Your task to perform on an android device: toggle improve location accuracy Image 0: 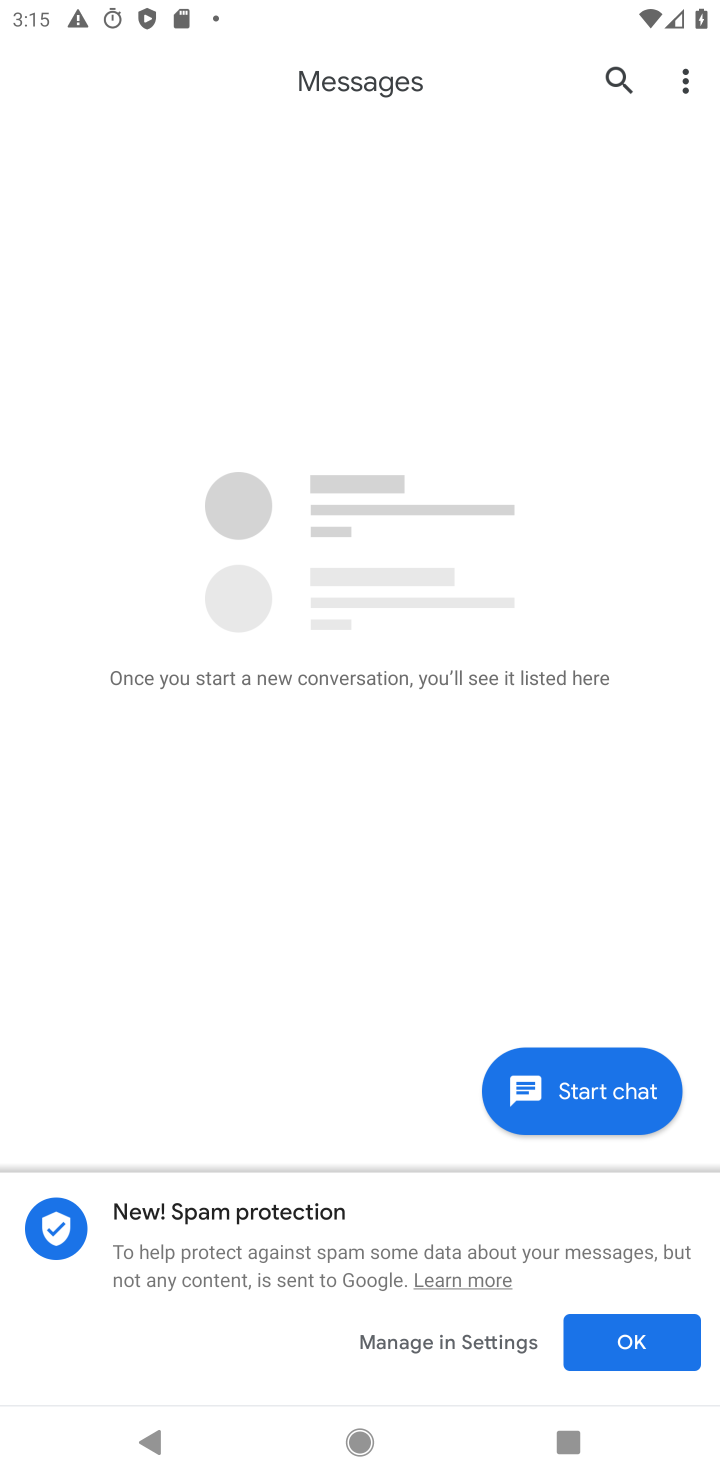
Step 0: press home button
Your task to perform on an android device: toggle improve location accuracy Image 1: 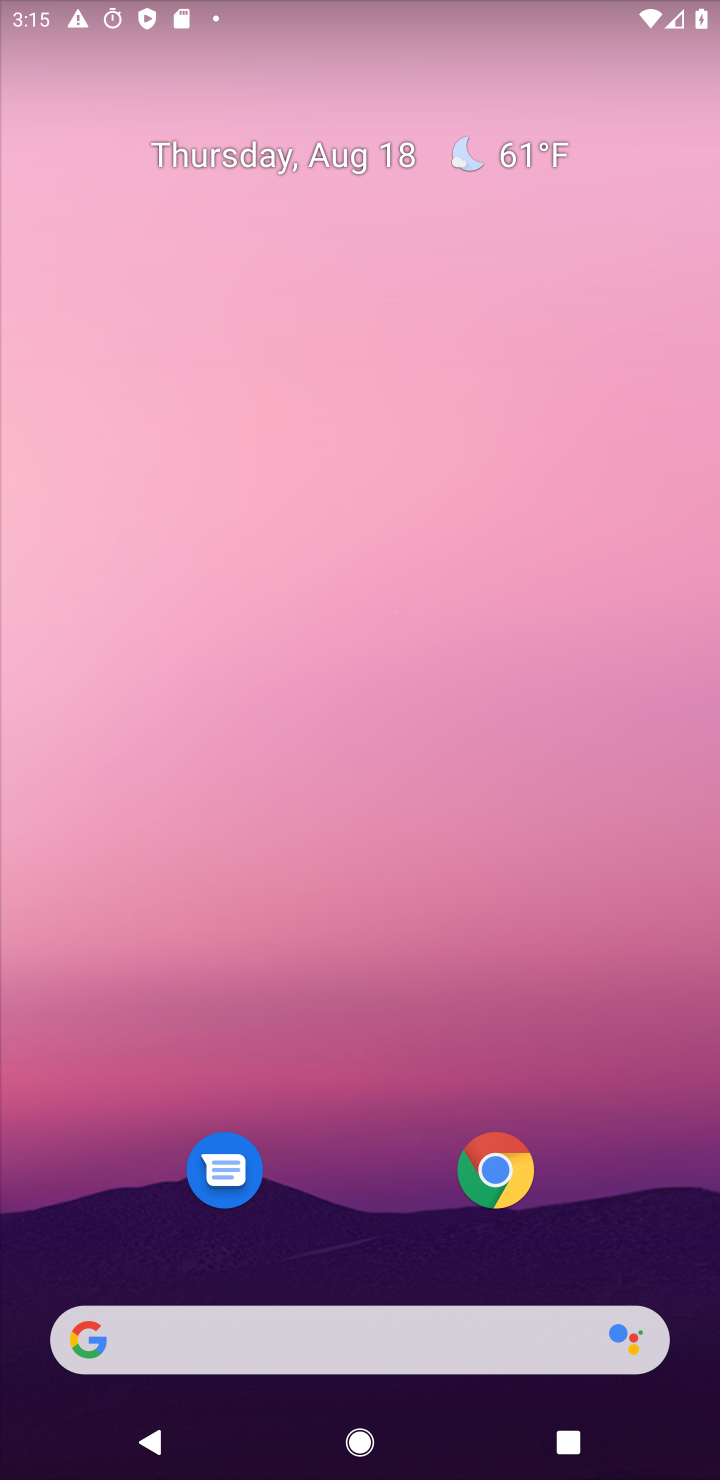
Step 1: drag from (75, 1379) to (515, 387)
Your task to perform on an android device: toggle improve location accuracy Image 2: 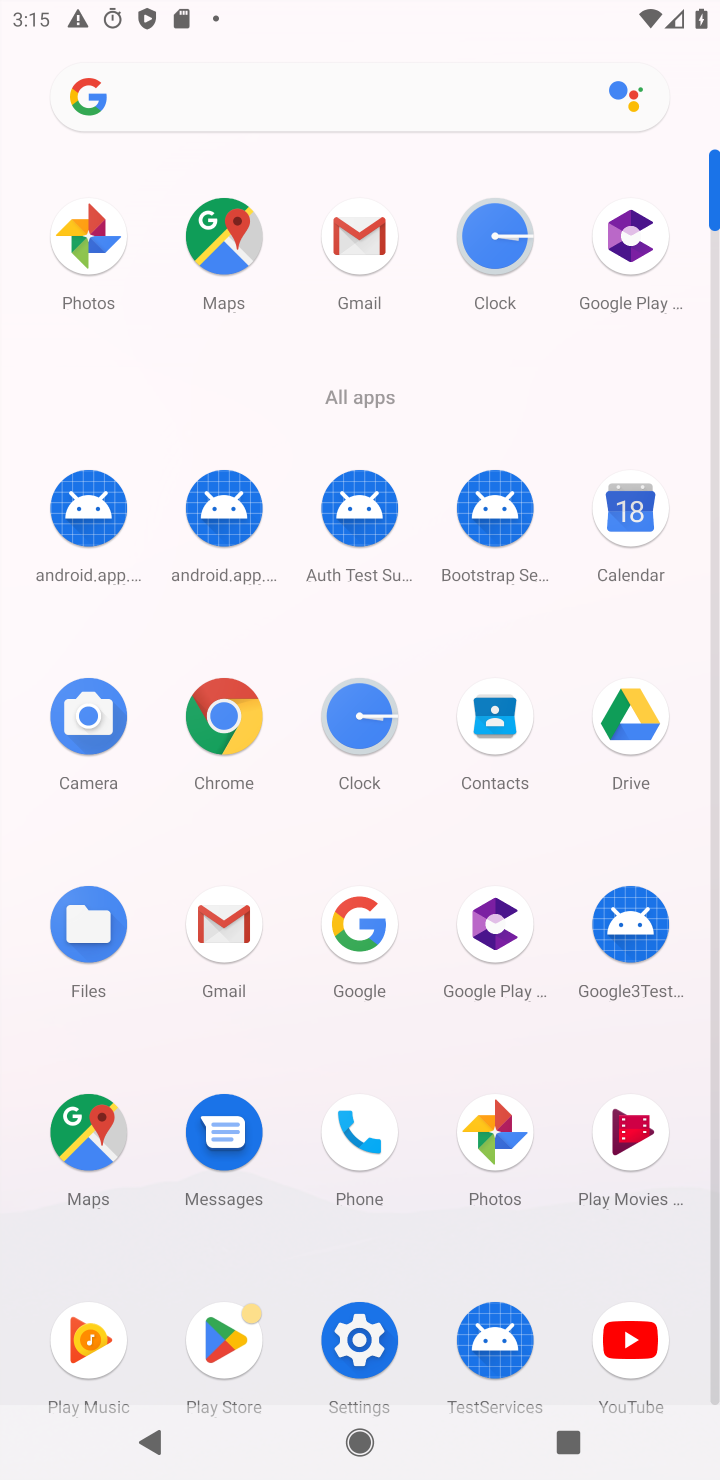
Step 2: click (384, 1342)
Your task to perform on an android device: toggle improve location accuracy Image 3: 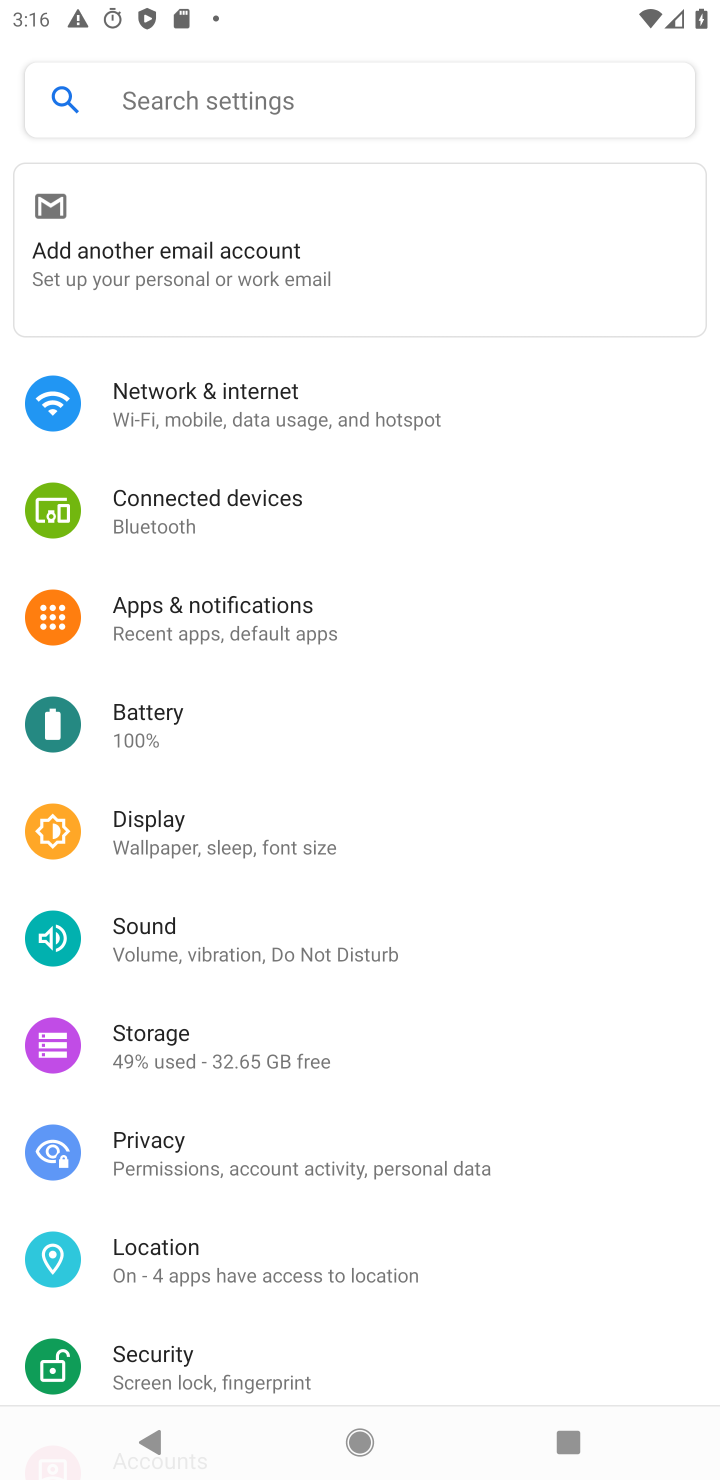
Step 3: click (225, 1281)
Your task to perform on an android device: toggle improve location accuracy Image 4: 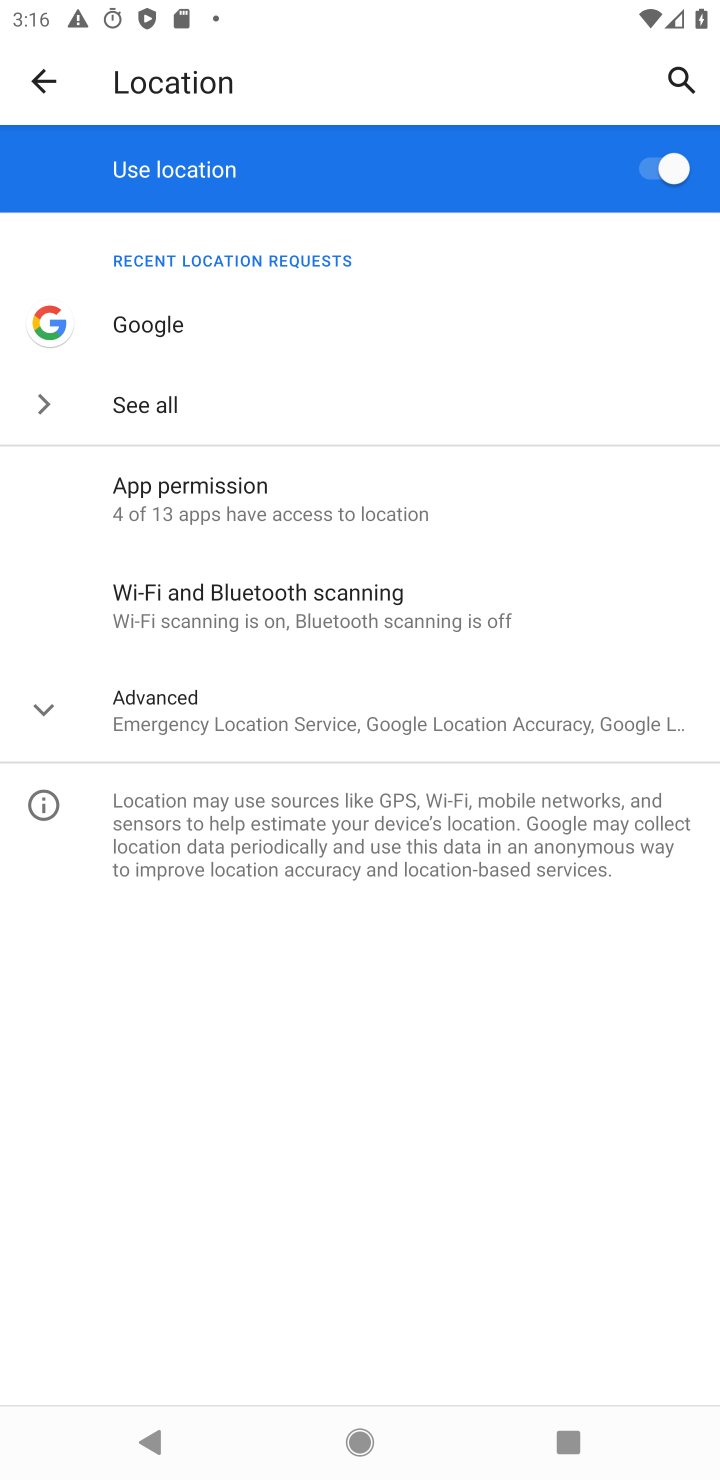
Step 4: click (224, 691)
Your task to perform on an android device: toggle improve location accuracy Image 5: 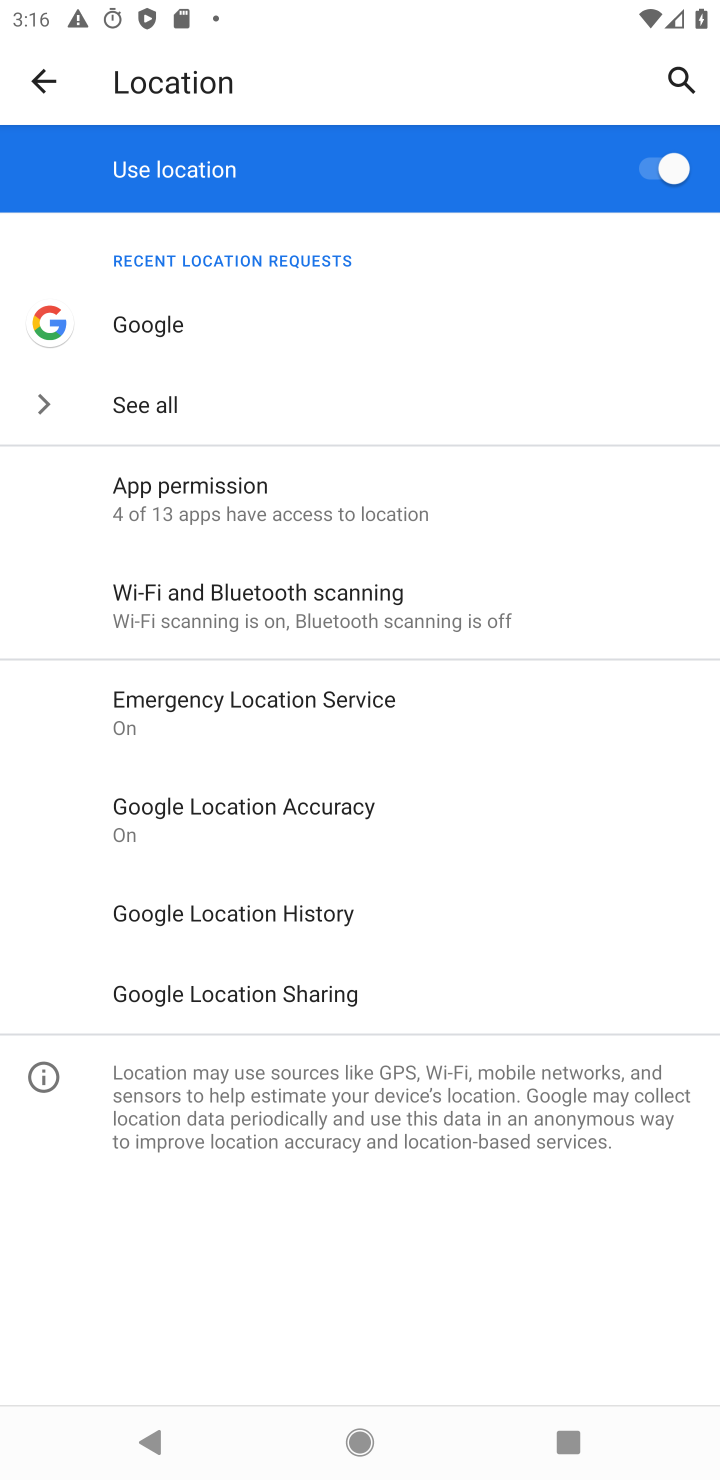
Step 5: click (236, 802)
Your task to perform on an android device: toggle improve location accuracy Image 6: 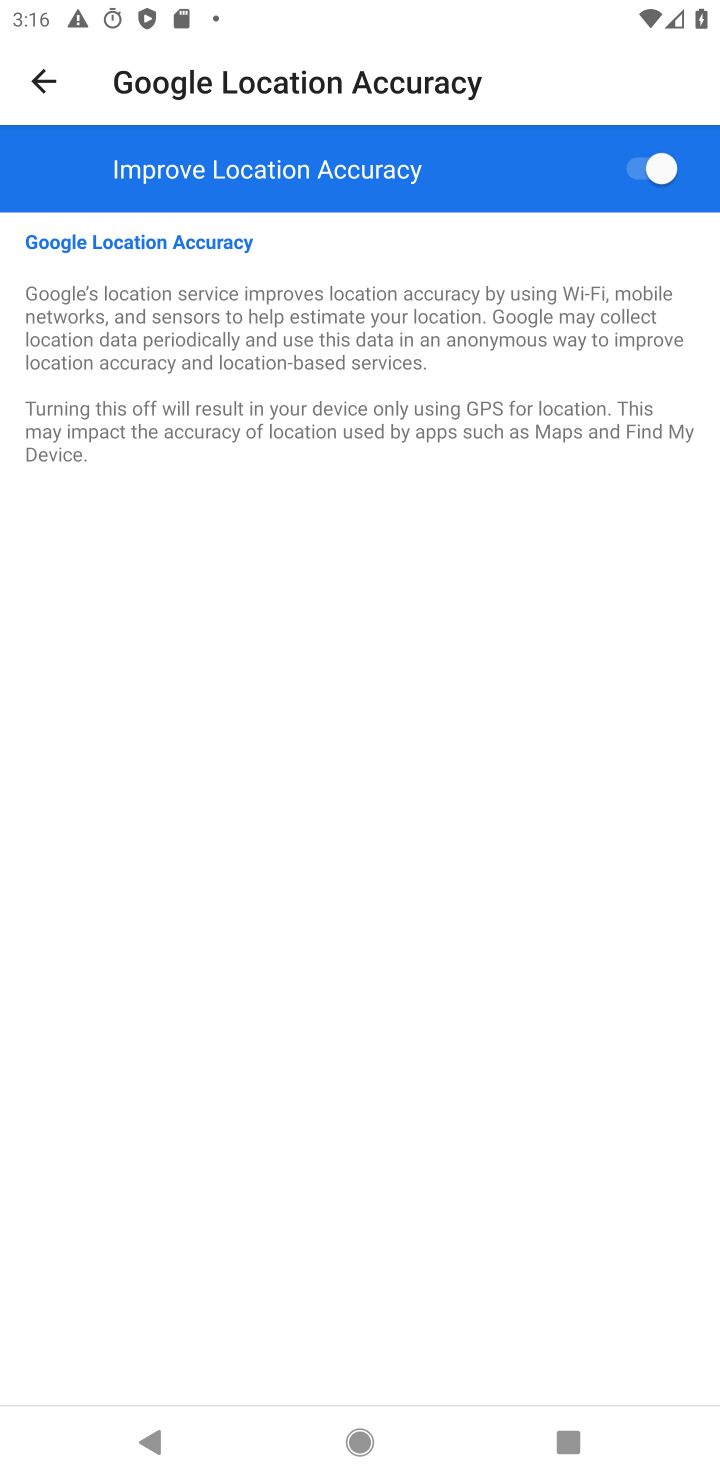
Step 6: task complete